Your task to perform on an android device: Is it going to rain this weekend? Image 0: 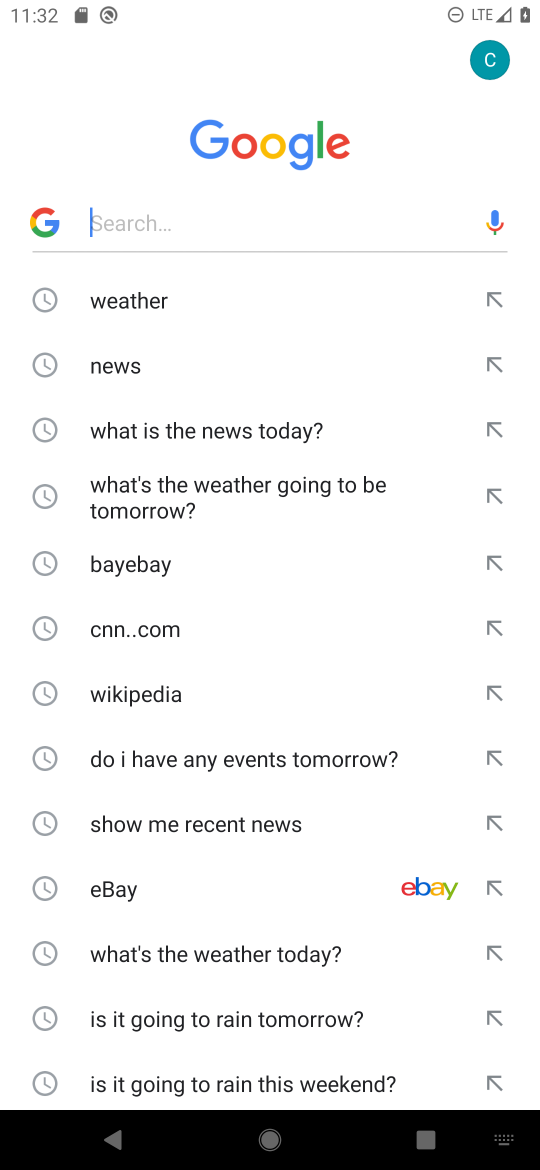
Step 0: press home button
Your task to perform on an android device: Is it going to rain this weekend? Image 1: 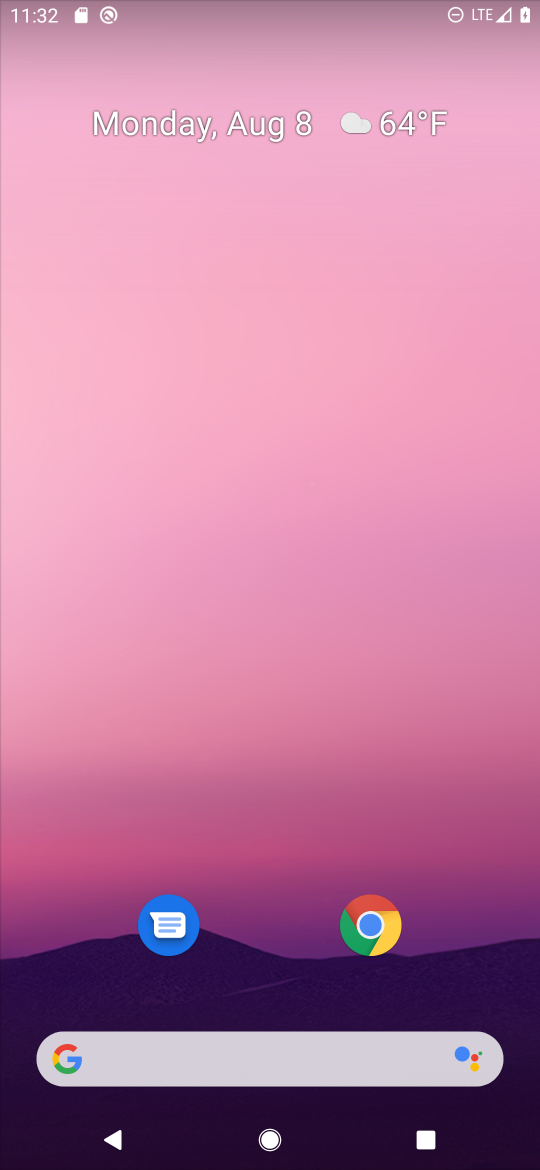
Step 1: click (422, 122)
Your task to perform on an android device: Is it going to rain this weekend? Image 2: 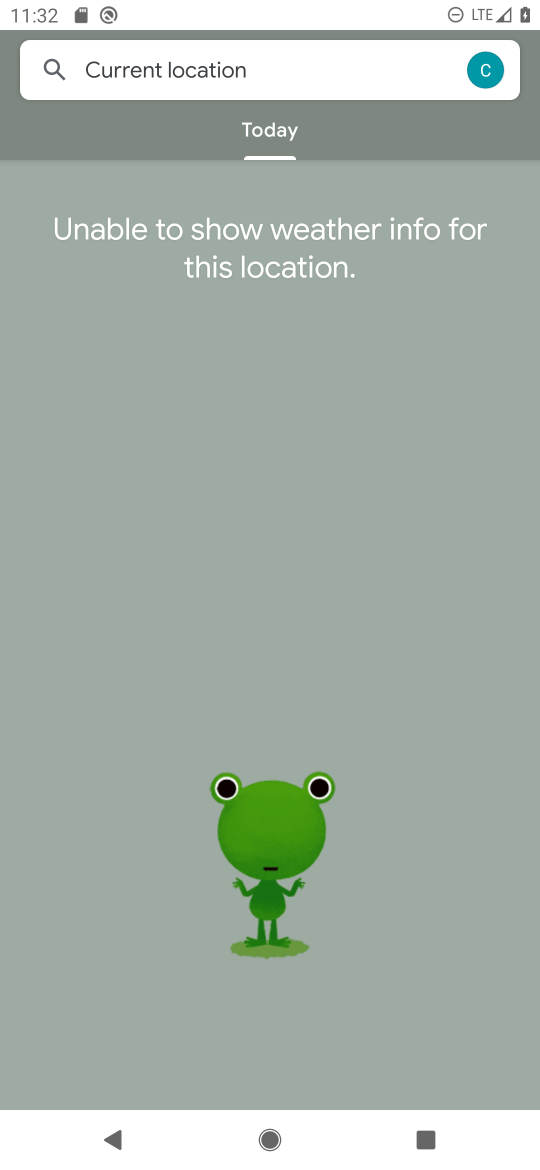
Step 2: task complete